Your task to perform on an android device: turn pop-ups off in chrome Image 0: 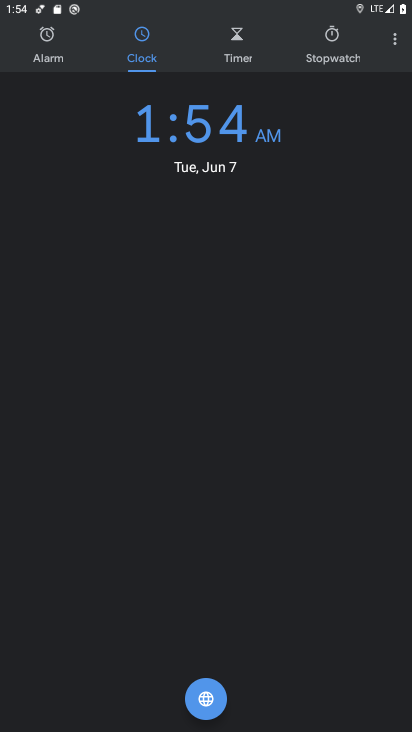
Step 0: press home button
Your task to perform on an android device: turn pop-ups off in chrome Image 1: 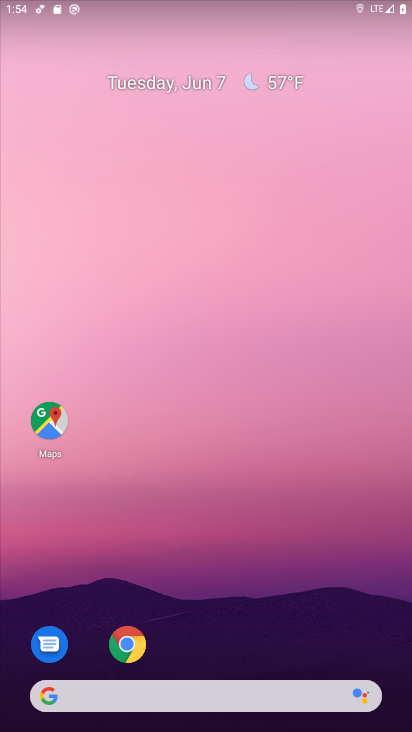
Step 1: click (129, 647)
Your task to perform on an android device: turn pop-ups off in chrome Image 2: 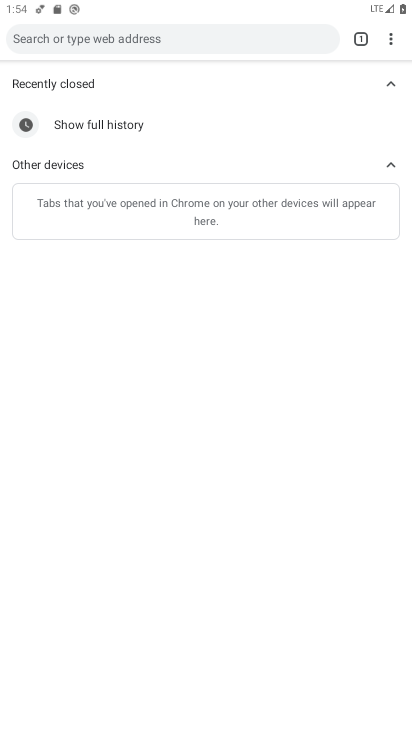
Step 2: click (385, 36)
Your task to perform on an android device: turn pop-ups off in chrome Image 3: 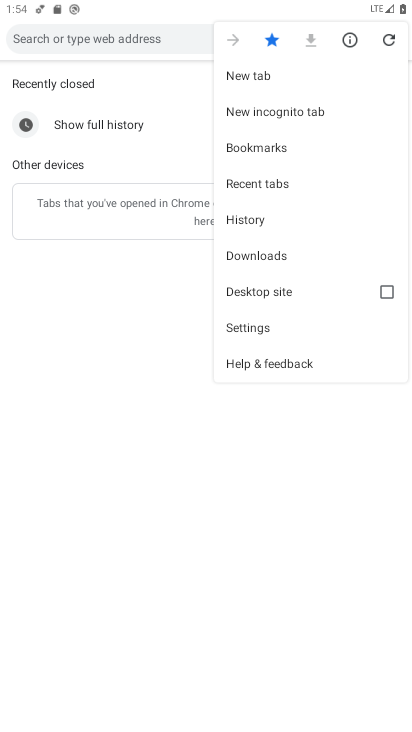
Step 3: click (265, 334)
Your task to perform on an android device: turn pop-ups off in chrome Image 4: 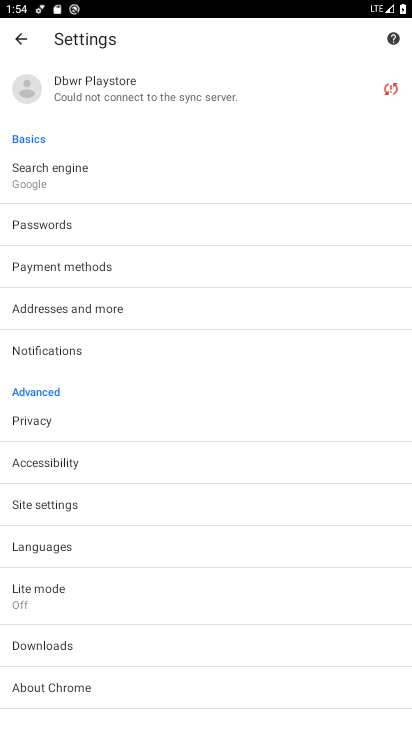
Step 4: click (38, 506)
Your task to perform on an android device: turn pop-ups off in chrome Image 5: 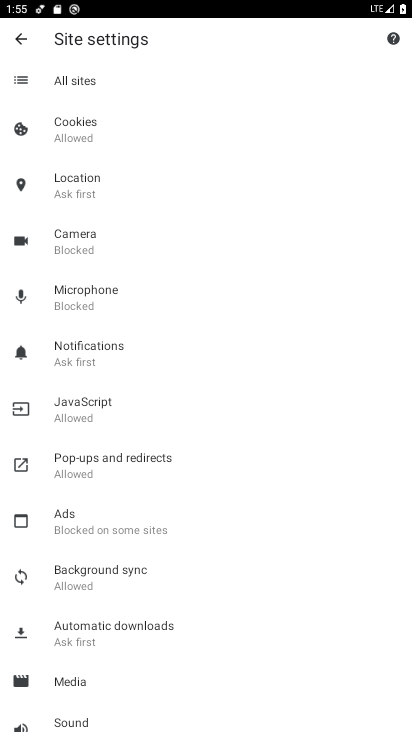
Step 5: click (140, 461)
Your task to perform on an android device: turn pop-ups off in chrome Image 6: 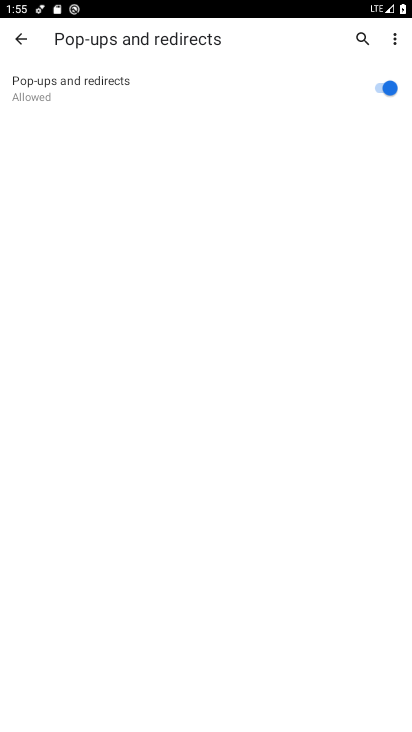
Step 6: click (379, 98)
Your task to perform on an android device: turn pop-ups off in chrome Image 7: 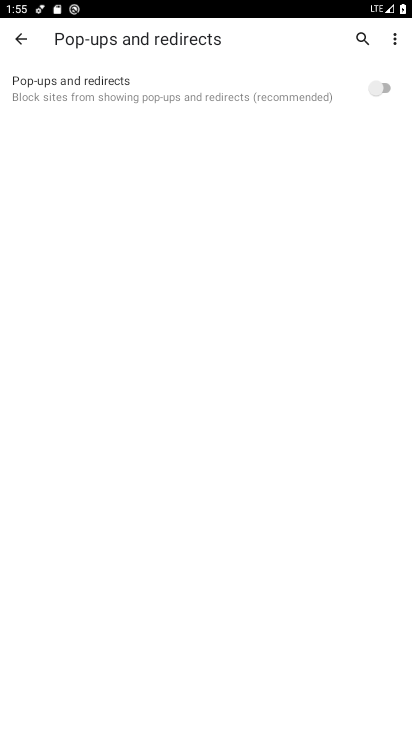
Step 7: task complete